Your task to perform on an android device: delete the emails in spam in the gmail app Image 0: 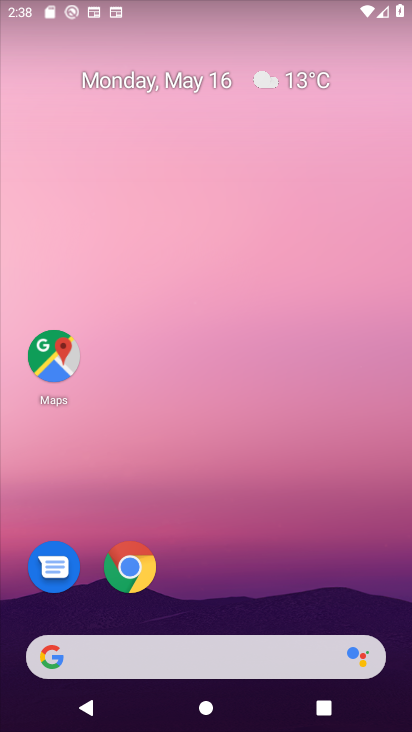
Step 0: drag from (335, 595) to (282, 218)
Your task to perform on an android device: delete the emails in spam in the gmail app Image 1: 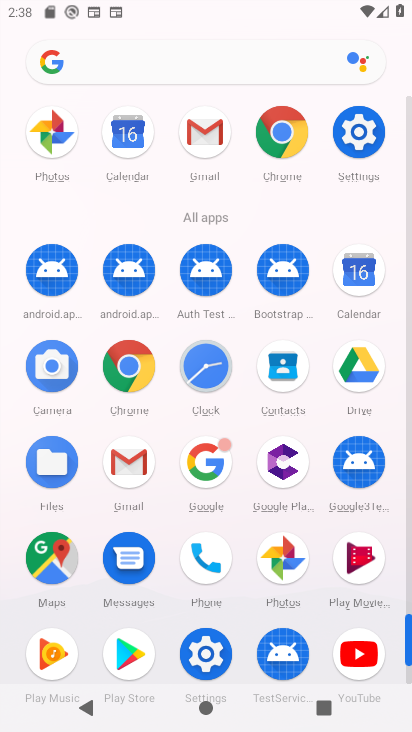
Step 1: click (123, 452)
Your task to perform on an android device: delete the emails in spam in the gmail app Image 2: 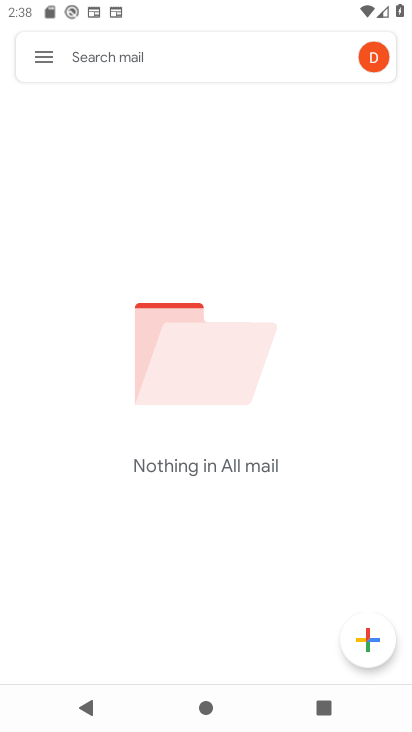
Step 2: click (42, 59)
Your task to perform on an android device: delete the emails in spam in the gmail app Image 3: 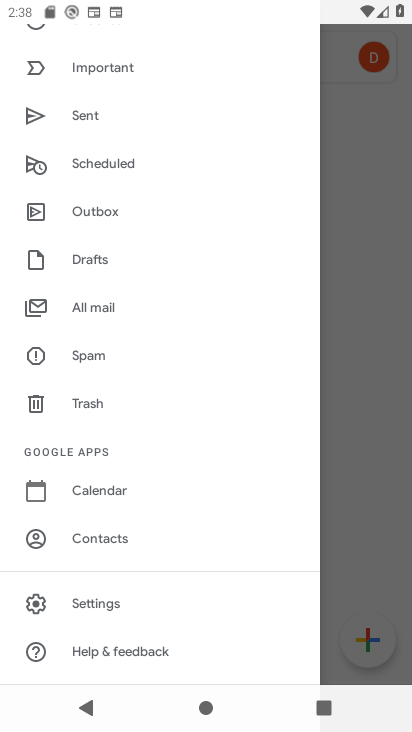
Step 3: click (100, 353)
Your task to perform on an android device: delete the emails in spam in the gmail app Image 4: 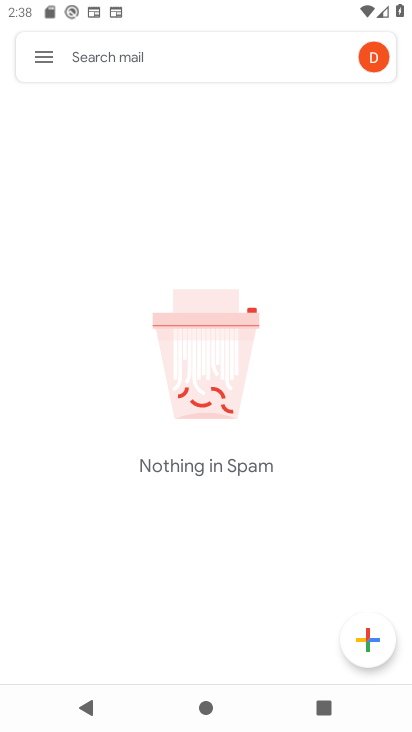
Step 4: task complete